Your task to perform on an android device: Clear the shopping cart on newegg. Search for usb-c to usb-a on newegg, select the first entry, and add it to the cart. Image 0: 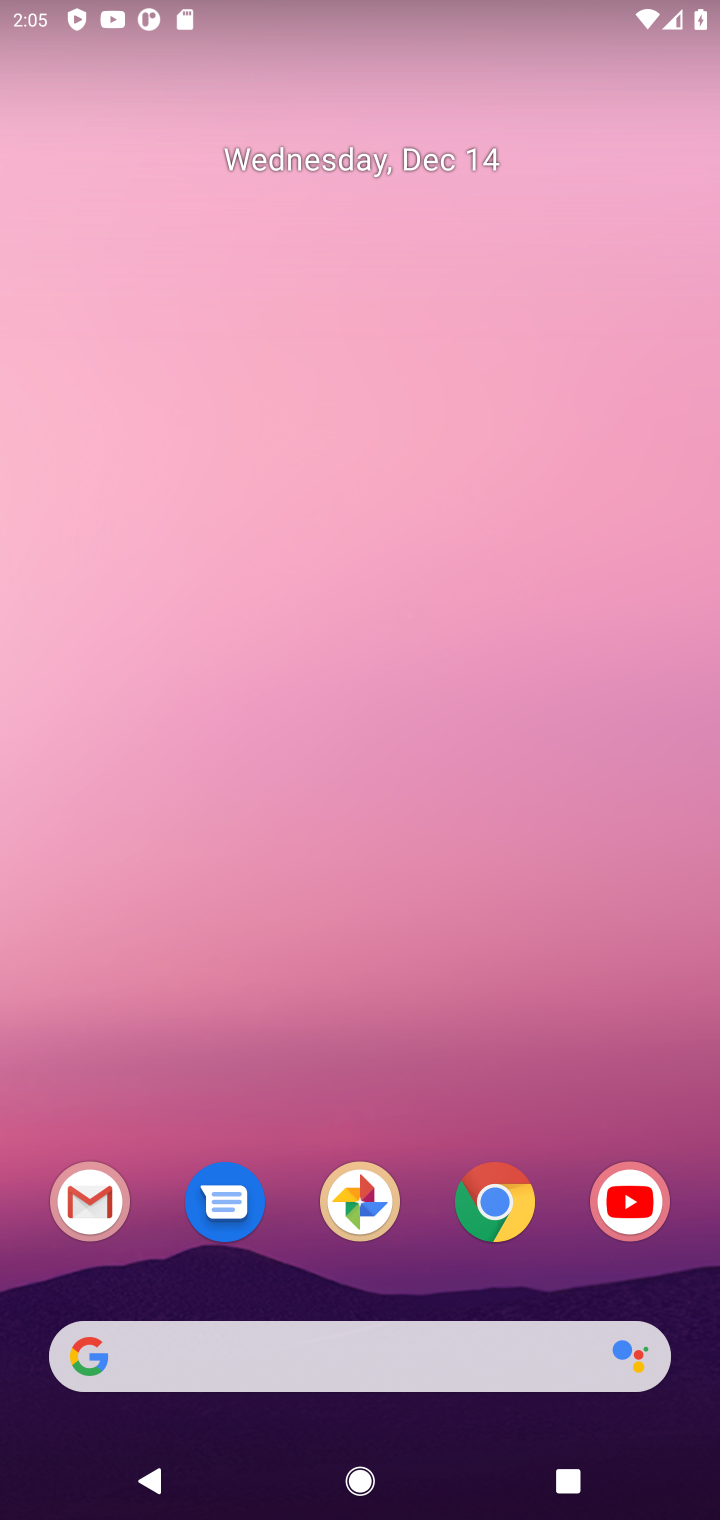
Step 0: click (517, 1193)
Your task to perform on an android device: Clear the shopping cart on newegg. Search for usb-c to usb-a on newegg, select the first entry, and add it to the cart. Image 1: 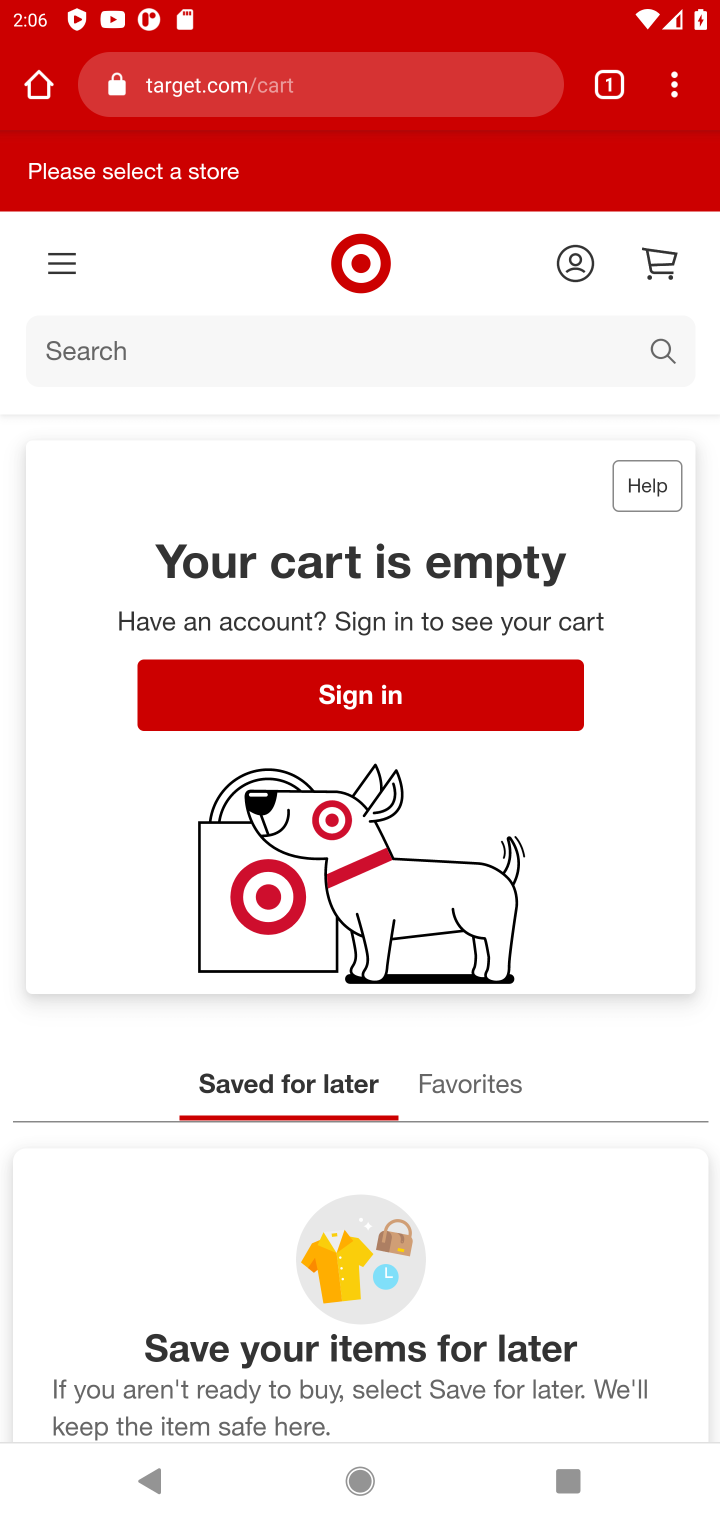
Step 1: click (332, 76)
Your task to perform on an android device: Clear the shopping cart on newegg. Search for usb-c to usb-a on newegg, select the first entry, and add it to the cart. Image 2: 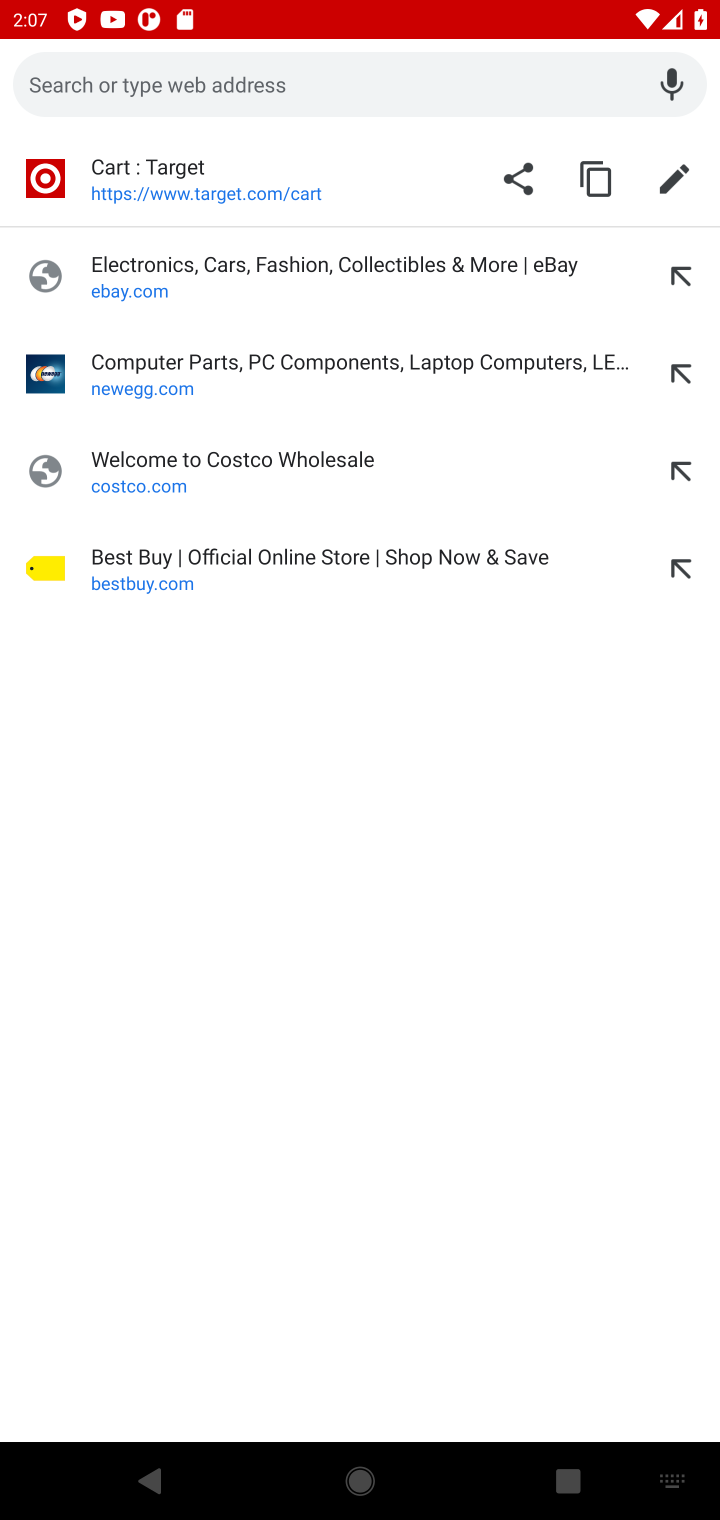
Step 2: click (284, 366)
Your task to perform on an android device: Clear the shopping cart on newegg. Search for usb-c to usb-a on newegg, select the first entry, and add it to the cart. Image 3: 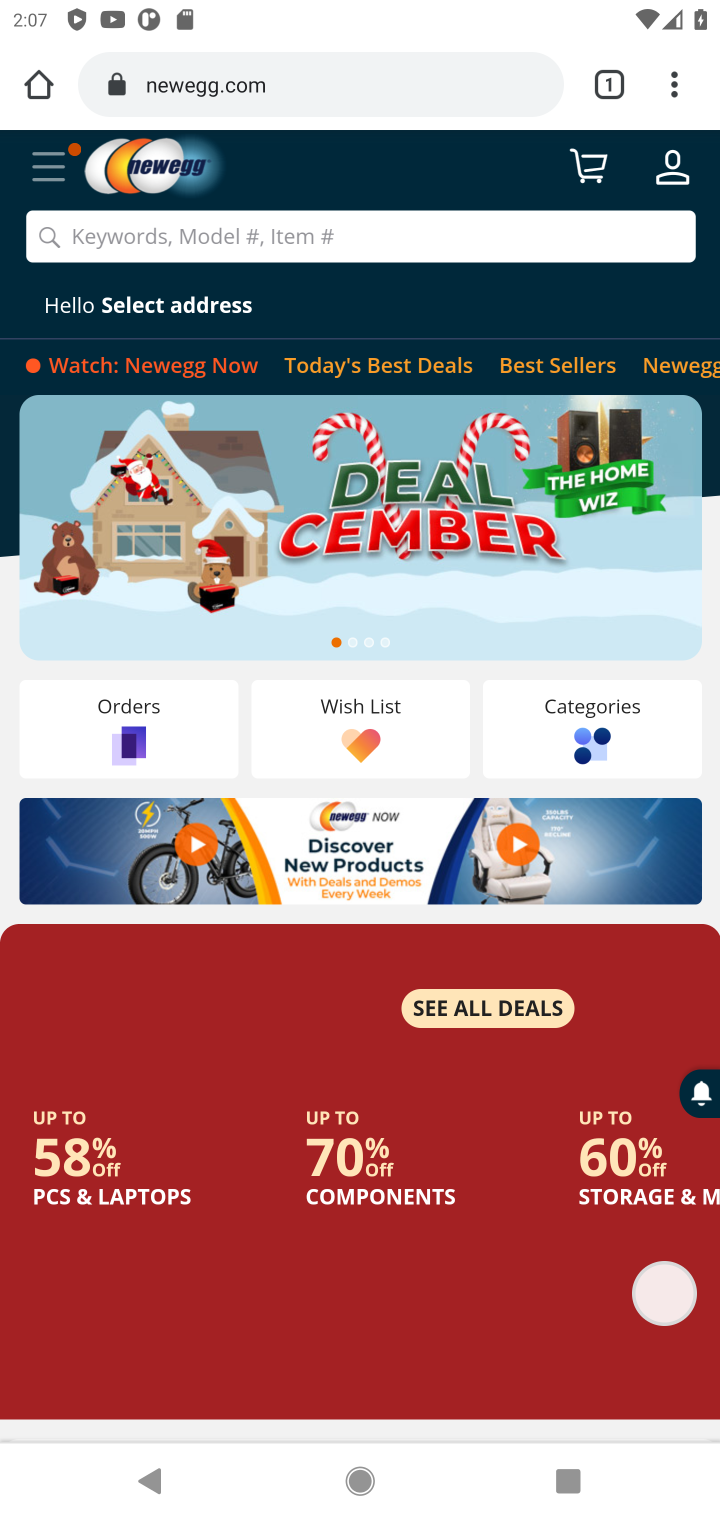
Step 3: click (593, 175)
Your task to perform on an android device: Clear the shopping cart on newegg. Search for usb-c to usb-a on newegg, select the first entry, and add it to the cart. Image 4: 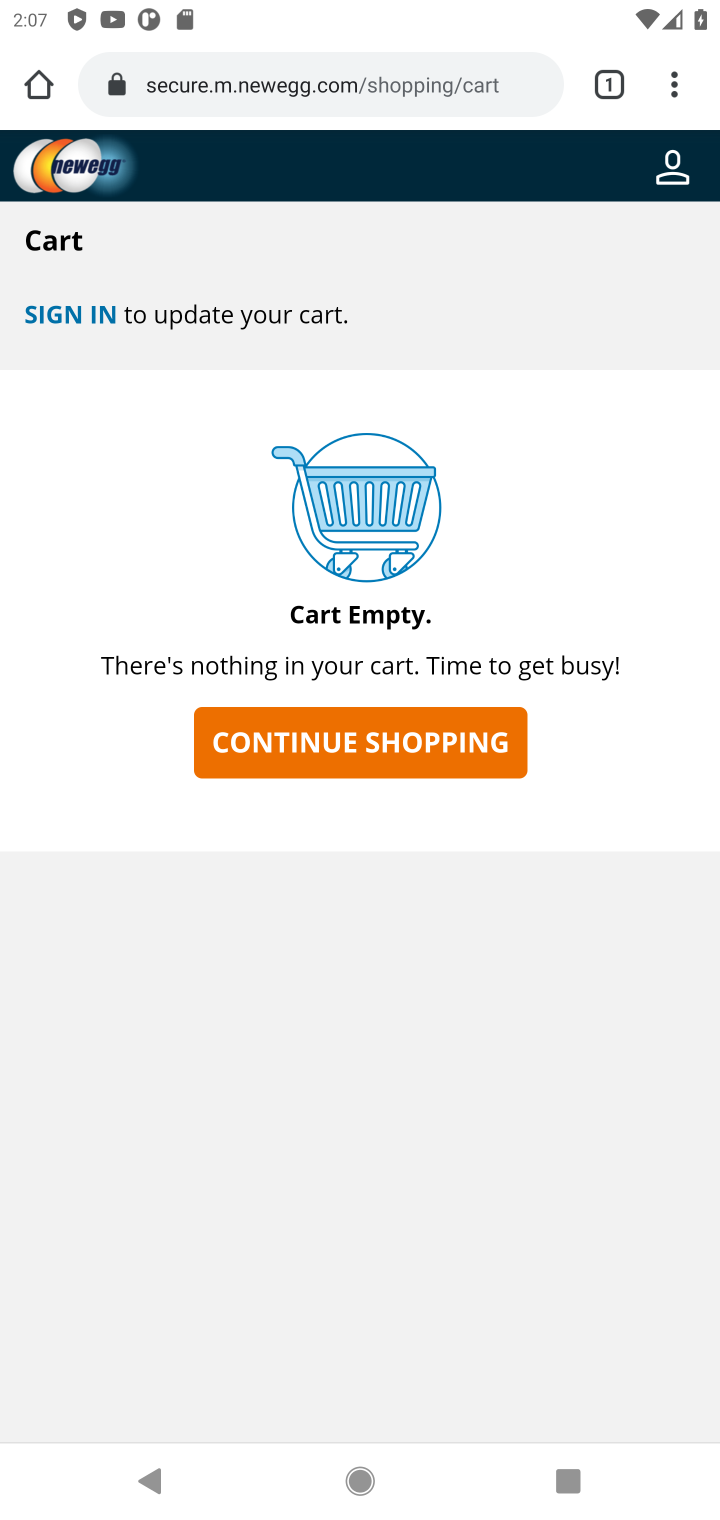
Step 4: click (85, 169)
Your task to perform on an android device: Clear the shopping cart on newegg. Search for usb-c to usb-a on newegg, select the first entry, and add it to the cart. Image 5: 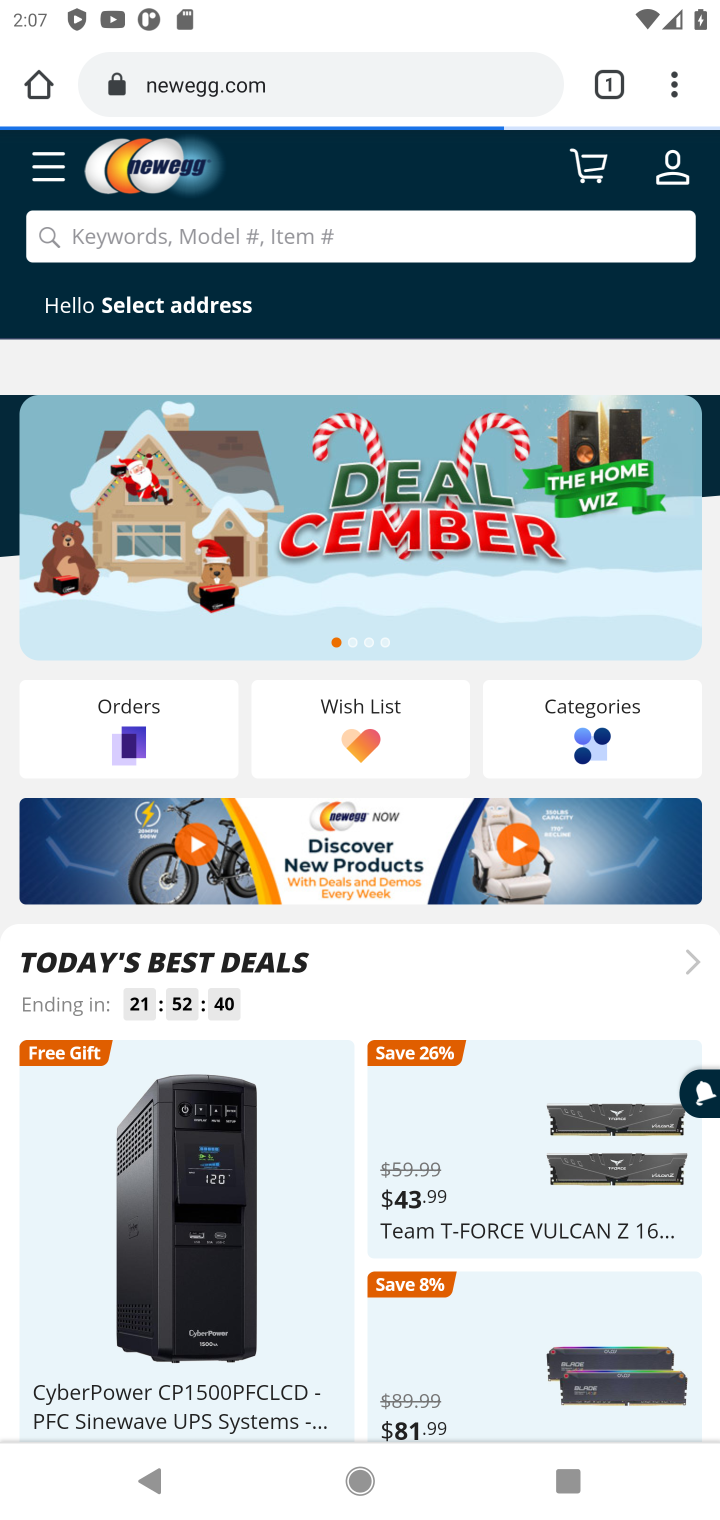
Step 5: click (384, 237)
Your task to perform on an android device: Clear the shopping cart on newegg. Search for usb-c to usb-a on newegg, select the first entry, and add it to the cart. Image 6: 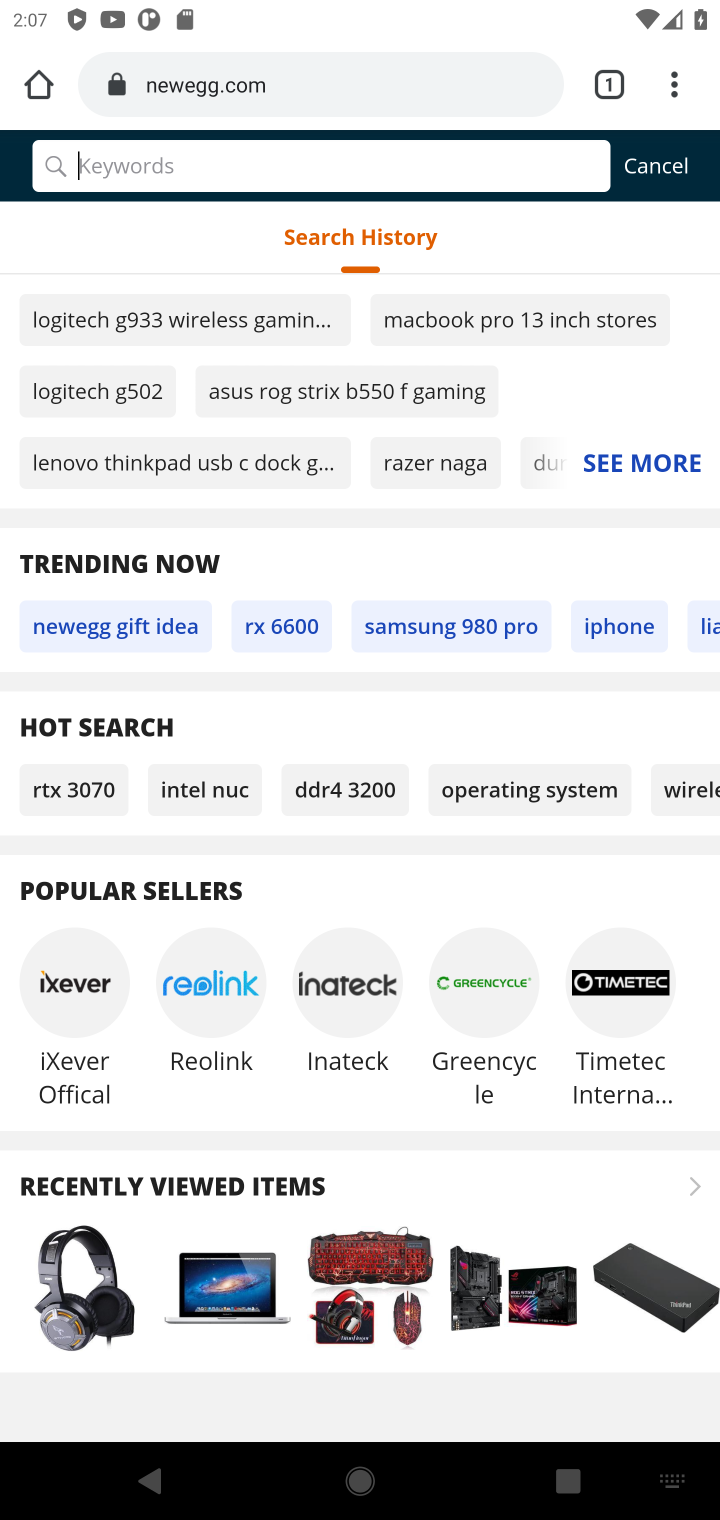
Step 6: type " usb-c"
Your task to perform on an android device: Clear the shopping cart on newegg. Search for usb-c to usb-a on newegg, select the first entry, and add it to the cart. Image 7: 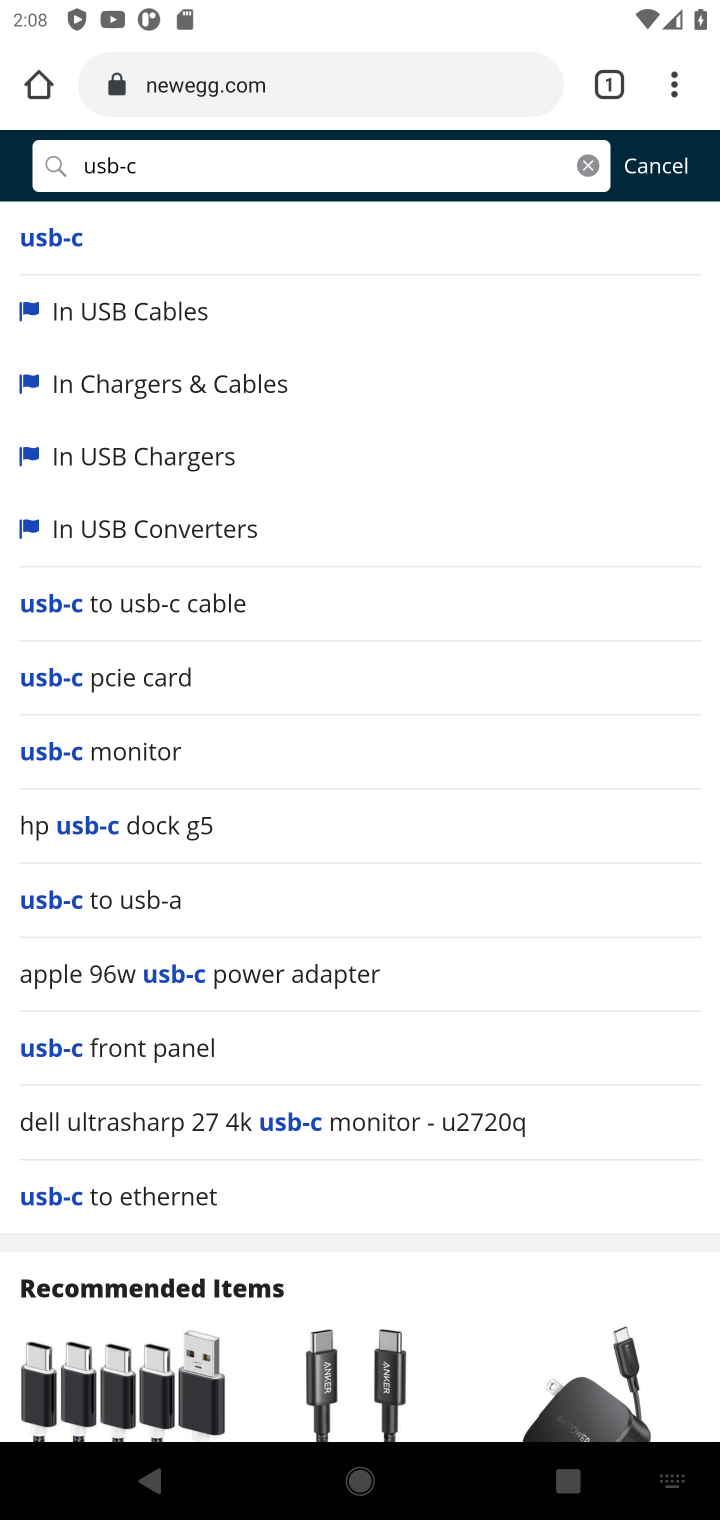
Step 7: type "TO USB-A"
Your task to perform on an android device: Clear the shopping cart on newegg. Search for usb-c to usb-a on newegg, select the first entry, and add it to the cart. Image 8: 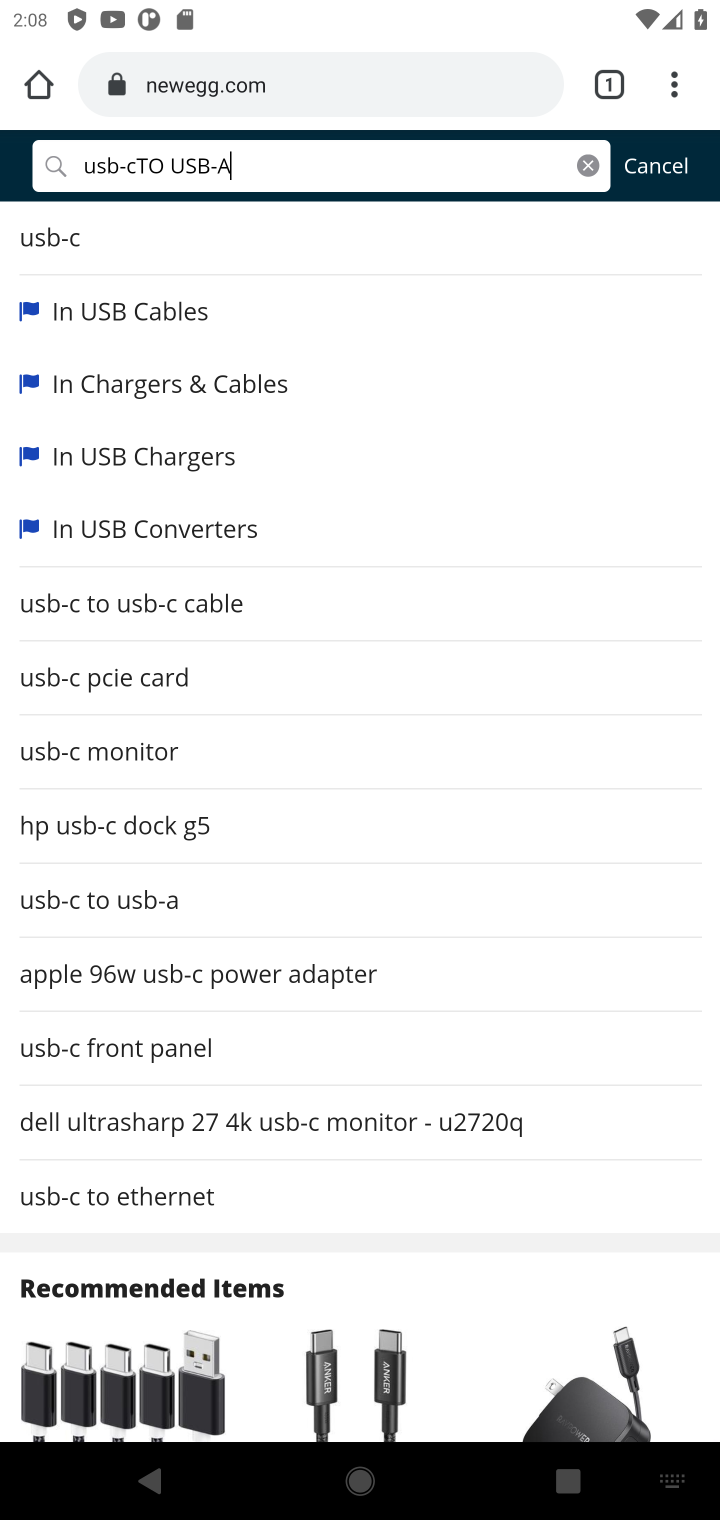
Step 8: click (98, 239)
Your task to perform on an android device: Clear the shopping cart on newegg. Search for usb-c to usb-a on newegg, select the first entry, and add it to the cart. Image 9: 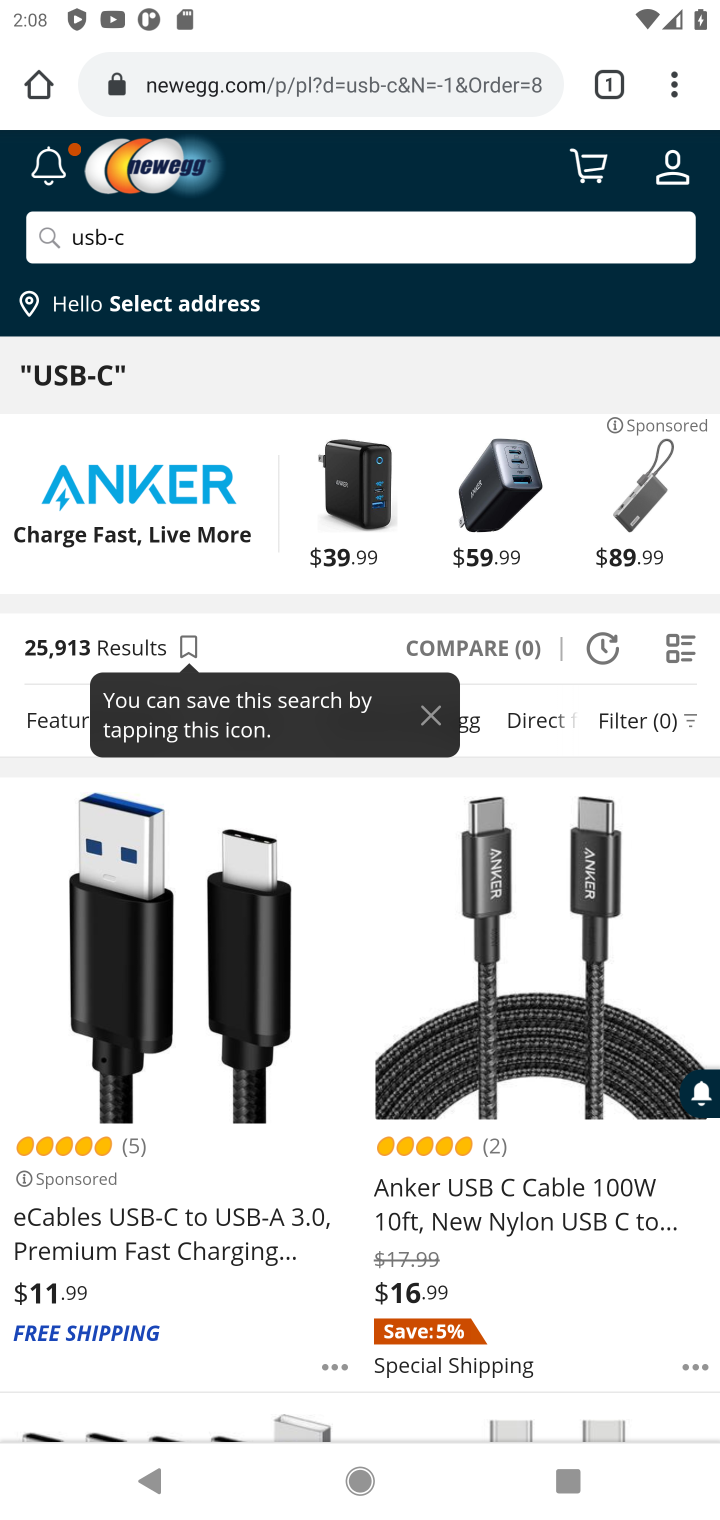
Step 9: click (186, 968)
Your task to perform on an android device: Clear the shopping cart on newegg. Search for usb-c to usb-a on newegg, select the first entry, and add it to the cart. Image 10: 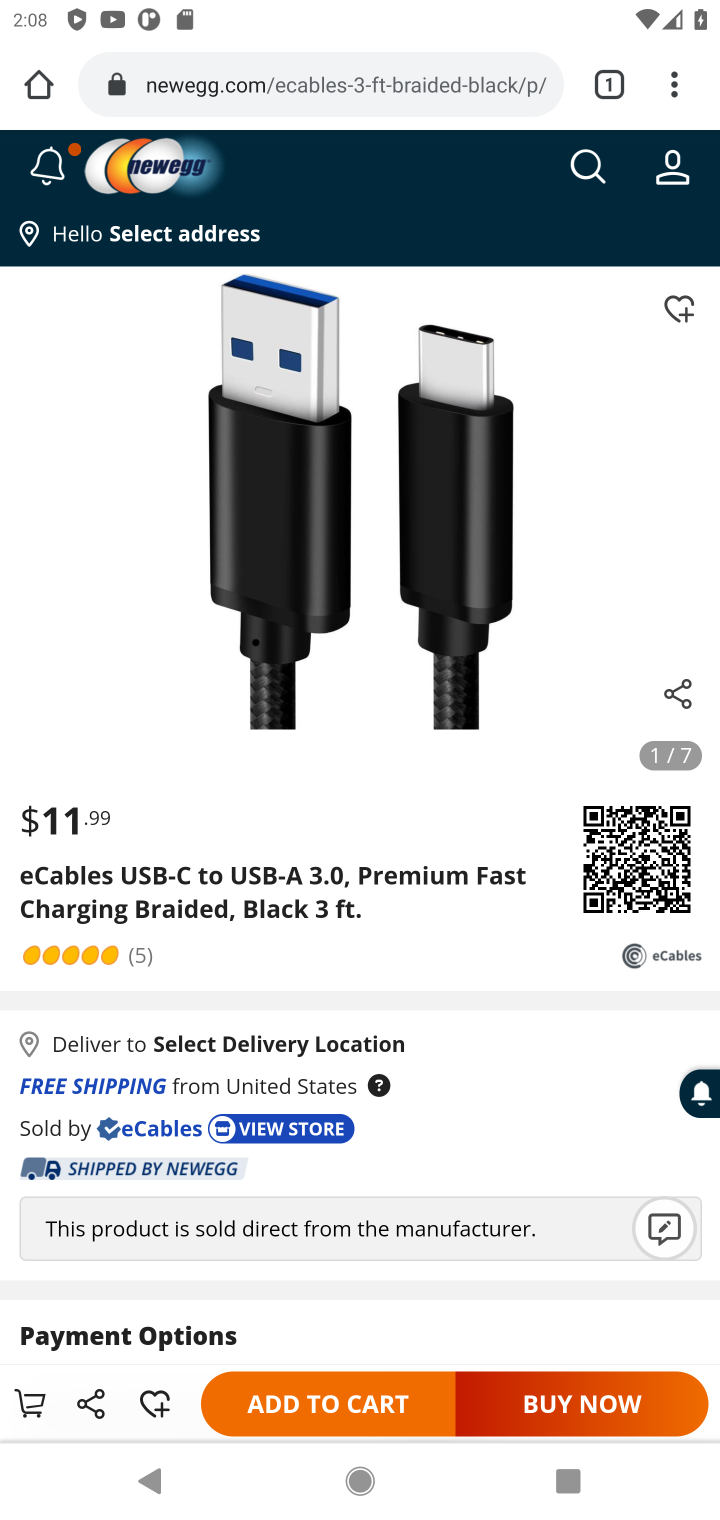
Step 10: click (304, 1401)
Your task to perform on an android device: Clear the shopping cart on newegg. Search for usb-c to usb-a on newegg, select the first entry, and add it to the cart. Image 11: 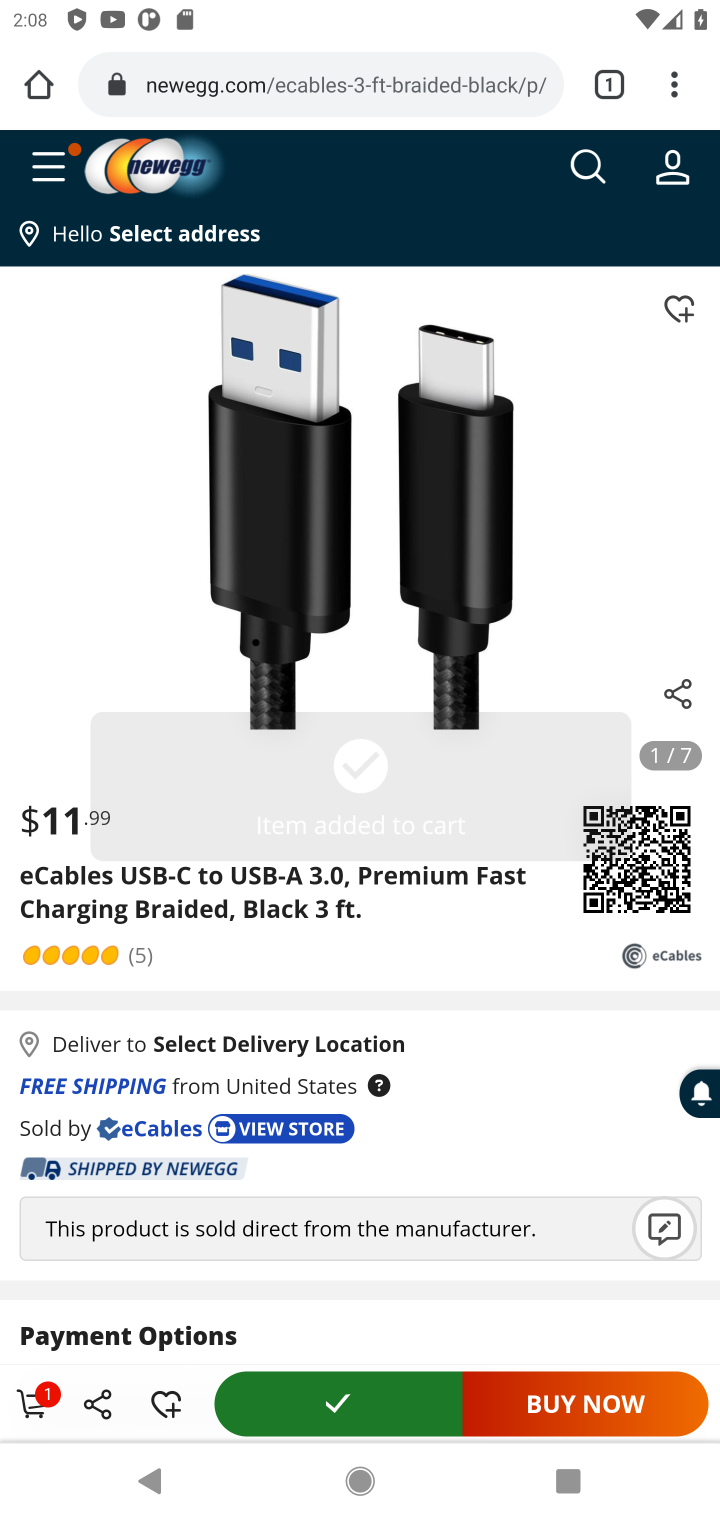
Step 11: task complete